Your task to perform on an android device: turn smart compose on in the gmail app Image 0: 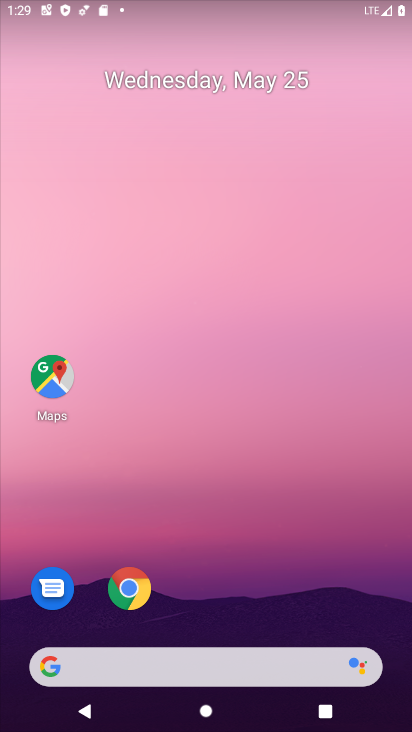
Step 0: drag from (302, 620) to (311, 0)
Your task to perform on an android device: turn smart compose on in the gmail app Image 1: 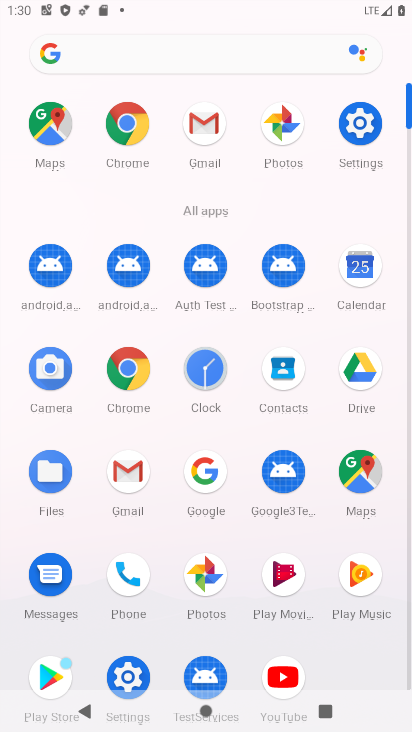
Step 1: click (191, 132)
Your task to perform on an android device: turn smart compose on in the gmail app Image 2: 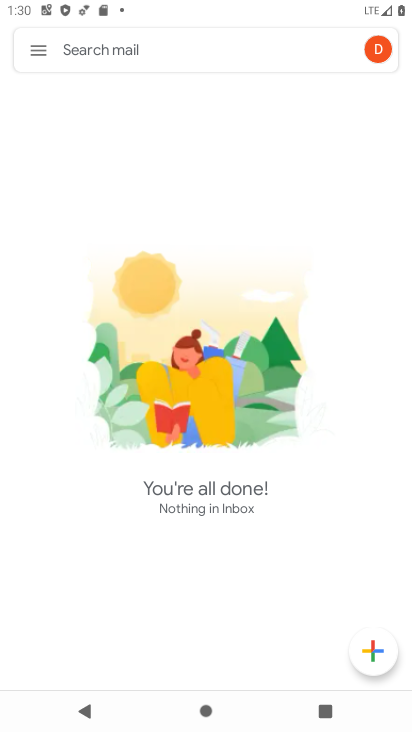
Step 2: click (33, 51)
Your task to perform on an android device: turn smart compose on in the gmail app Image 3: 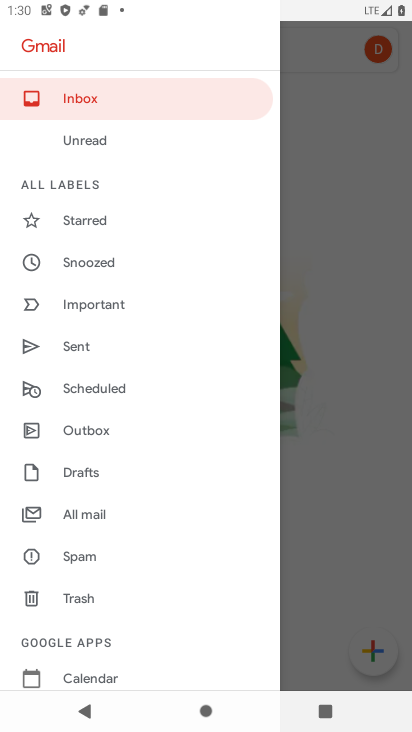
Step 3: drag from (139, 559) to (156, 142)
Your task to perform on an android device: turn smart compose on in the gmail app Image 4: 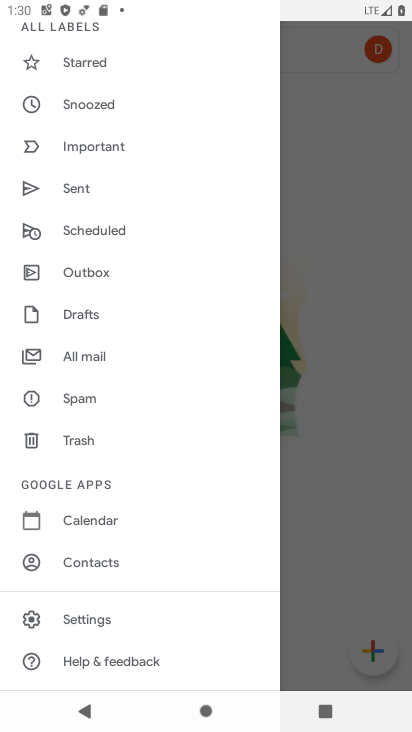
Step 4: click (82, 616)
Your task to perform on an android device: turn smart compose on in the gmail app Image 5: 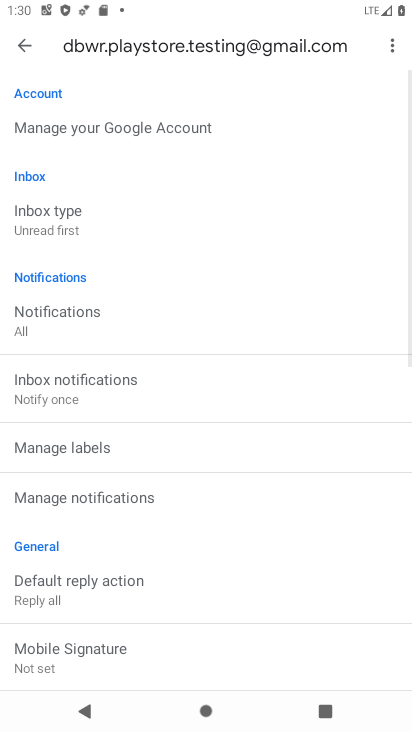
Step 5: task complete